Your task to perform on an android device: Go to CNN.com Image 0: 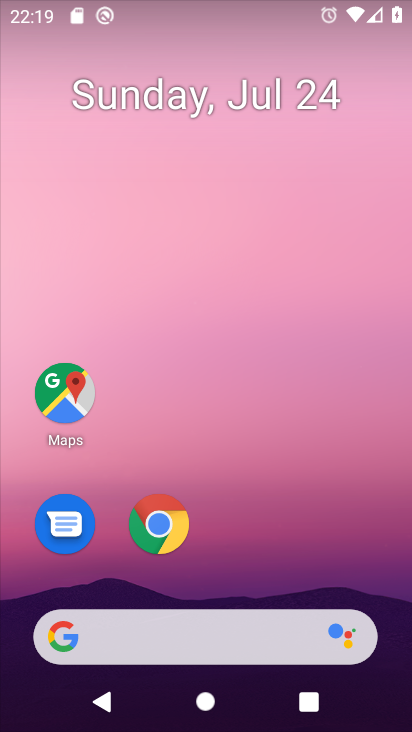
Step 0: click (248, 640)
Your task to perform on an android device: Go to CNN.com Image 1: 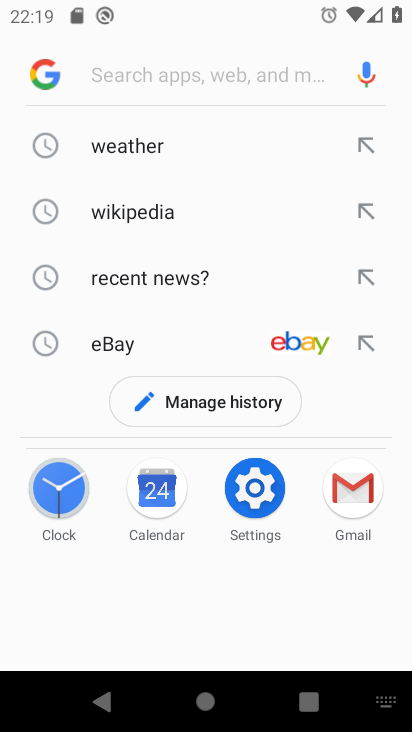
Step 1: type "cnn.com"
Your task to perform on an android device: Go to CNN.com Image 2: 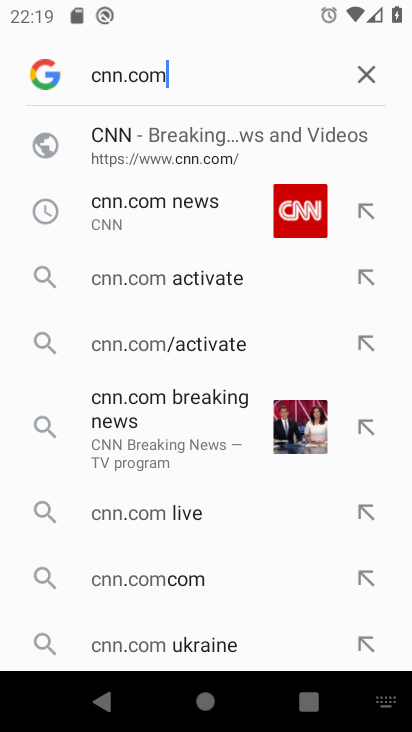
Step 2: click (164, 158)
Your task to perform on an android device: Go to CNN.com Image 3: 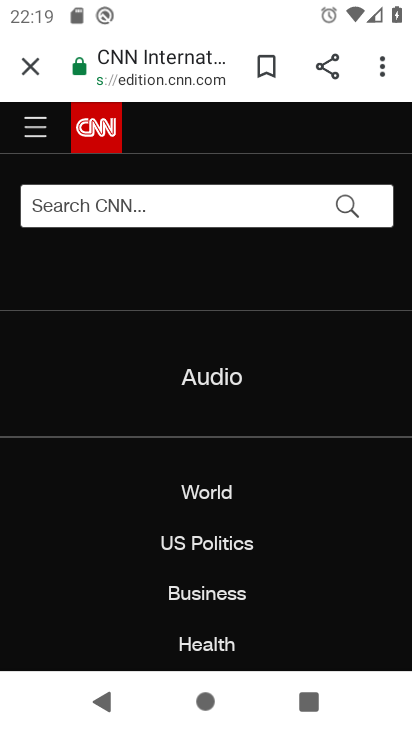
Step 3: task complete